Your task to perform on an android device: Search for asus zenbook on bestbuy, select the first entry, and add it to the cart. Image 0: 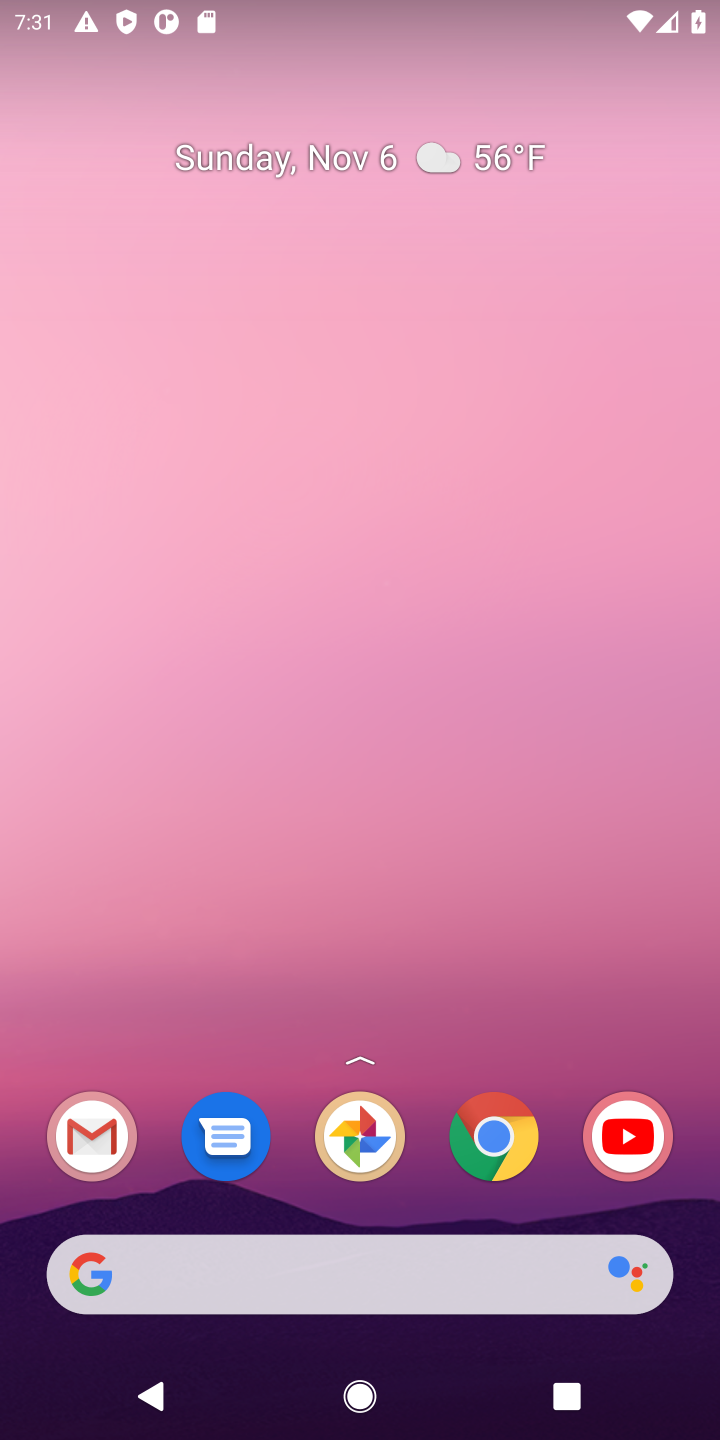
Step 0: click (283, 1248)
Your task to perform on an android device: Search for asus zenbook on bestbuy, select the first entry, and add it to the cart. Image 1: 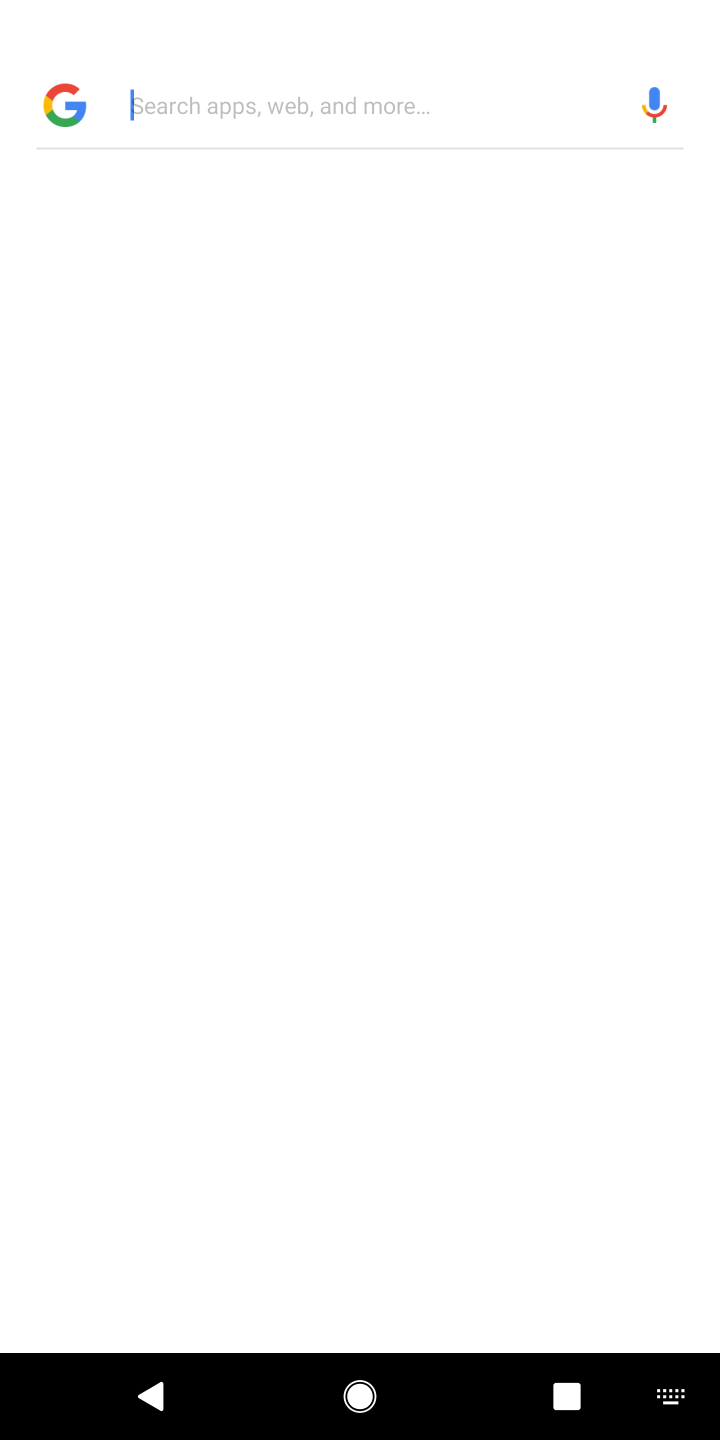
Step 1: press home button
Your task to perform on an android device: Search for asus zenbook on bestbuy, select the first entry, and add it to the cart. Image 2: 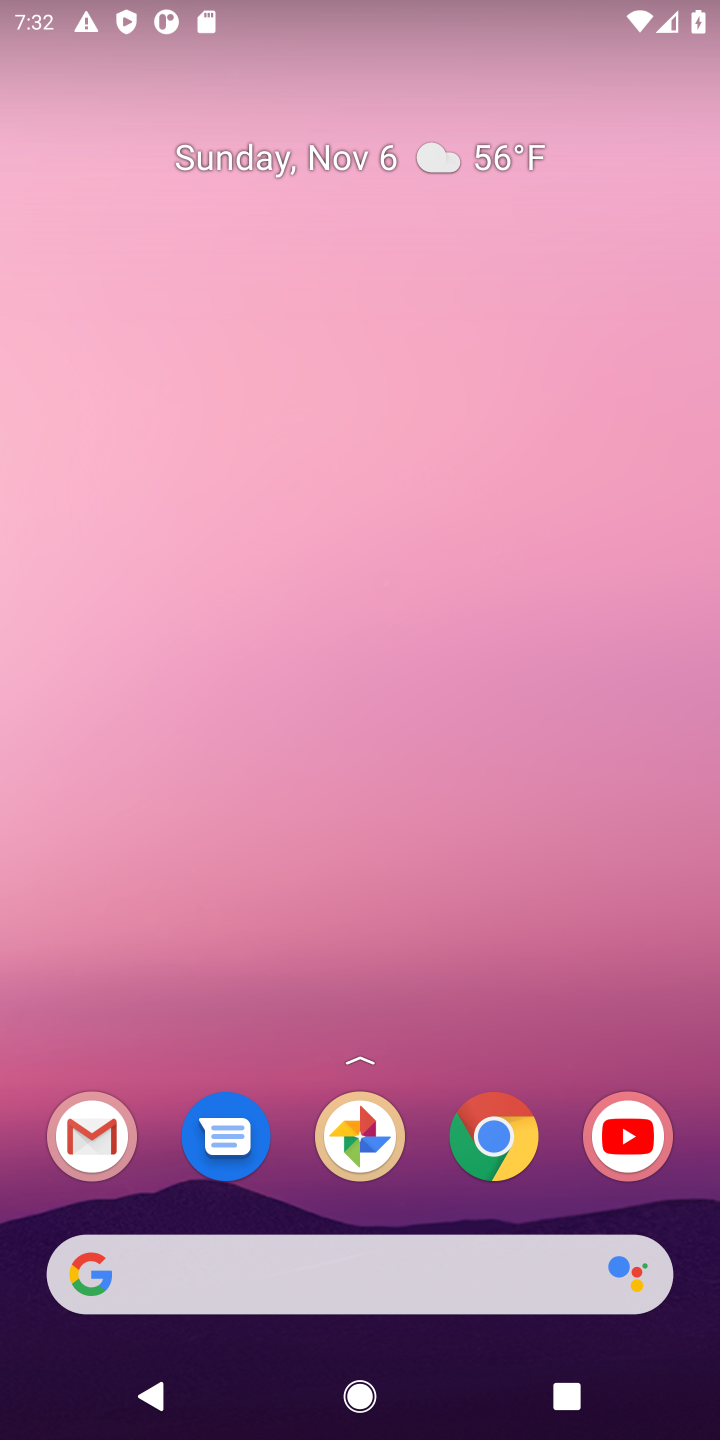
Step 2: click (328, 1275)
Your task to perform on an android device: Search for asus zenbook on bestbuy, select the first entry, and add it to the cart. Image 3: 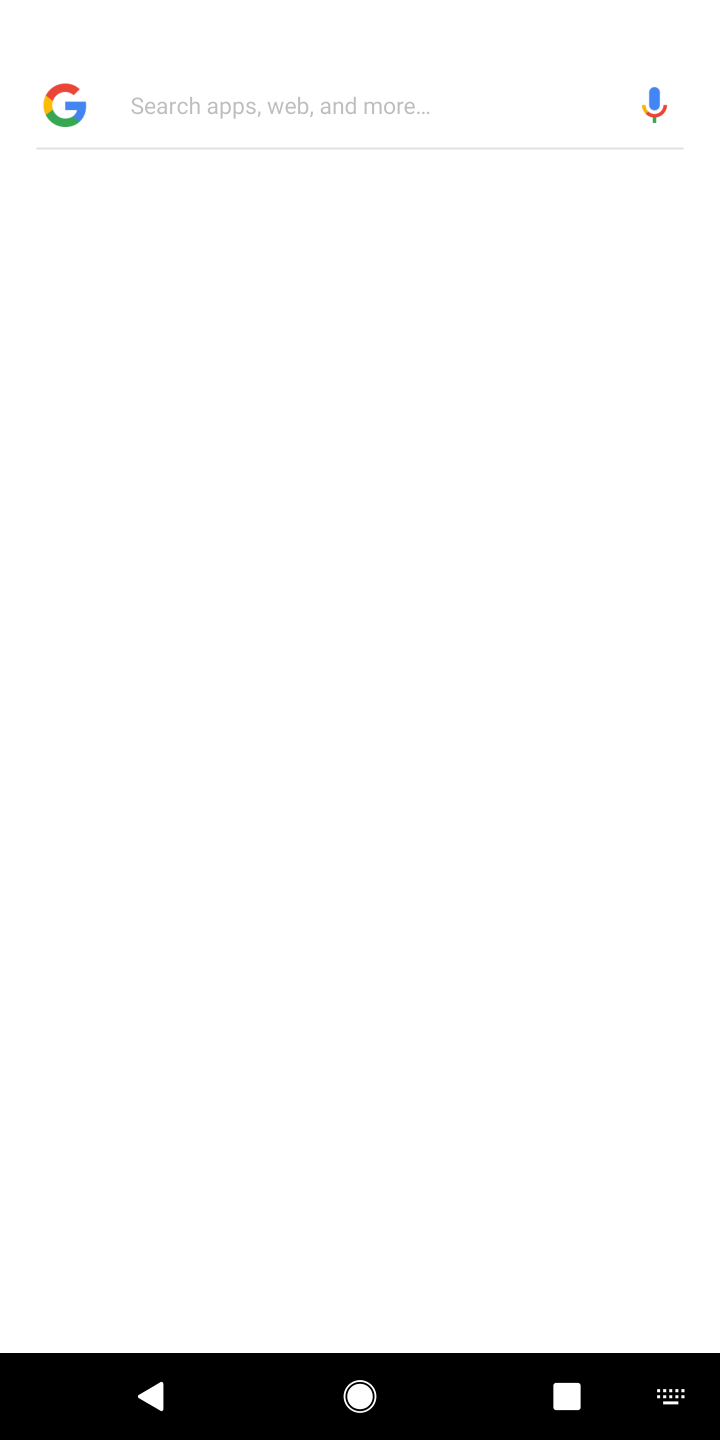
Step 3: type "bestbuy"
Your task to perform on an android device: Search for asus zenbook on bestbuy, select the first entry, and add it to the cart. Image 4: 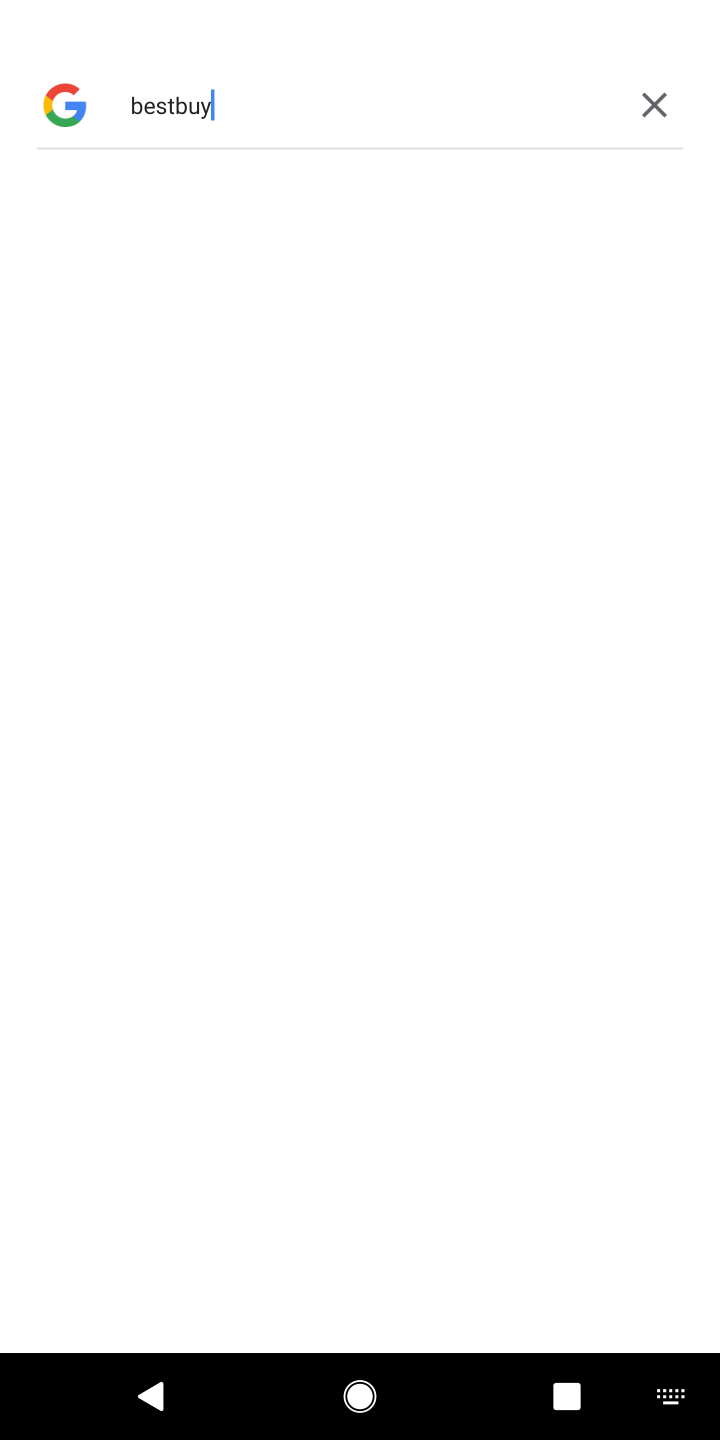
Step 4: task complete